Your task to perform on an android device: turn on data saver in the chrome app Image 0: 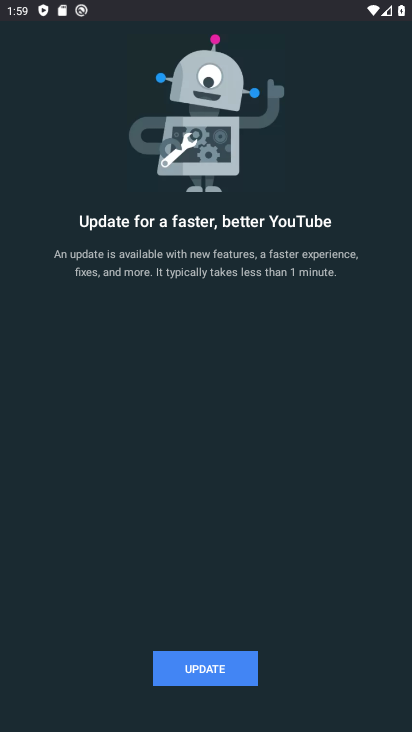
Step 0: press back button
Your task to perform on an android device: turn on data saver in the chrome app Image 1: 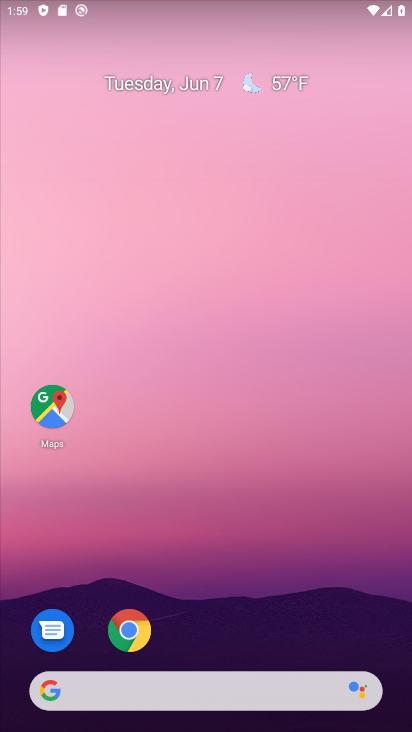
Step 1: click (128, 633)
Your task to perform on an android device: turn on data saver in the chrome app Image 2: 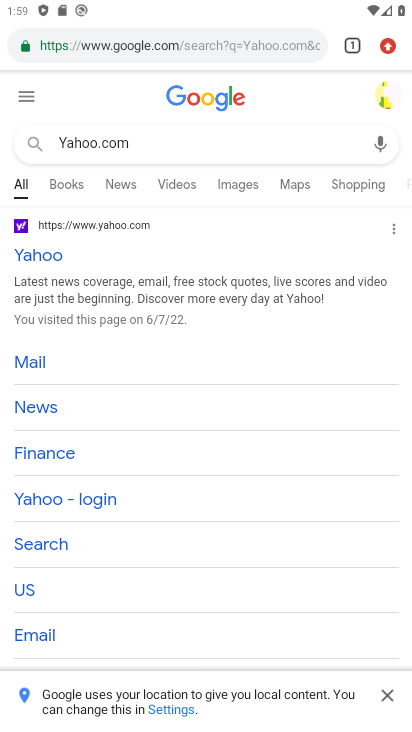
Step 2: drag from (286, 218) to (291, 408)
Your task to perform on an android device: turn on data saver in the chrome app Image 3: 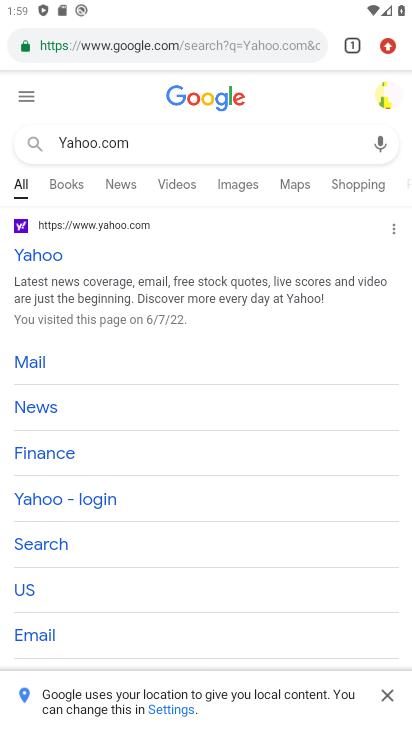
Step 3: click (380, 42)
Your task to perform on an android device: turn on data saver in the chrome app Image 4: 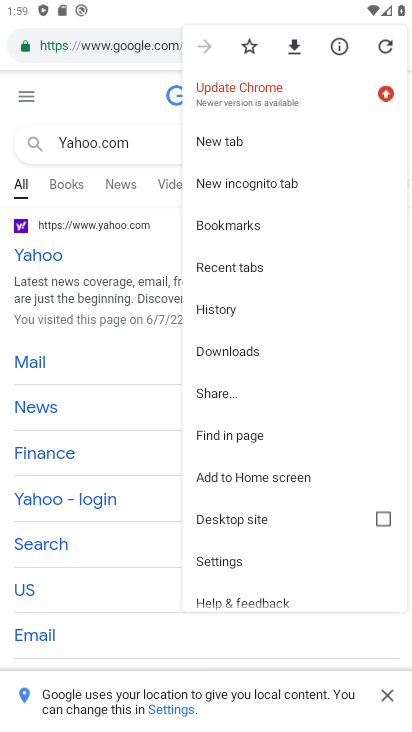
Step 4: click (207, 564)
Your task to perform on an android device: turn on data saver in the chrome app Image 5: 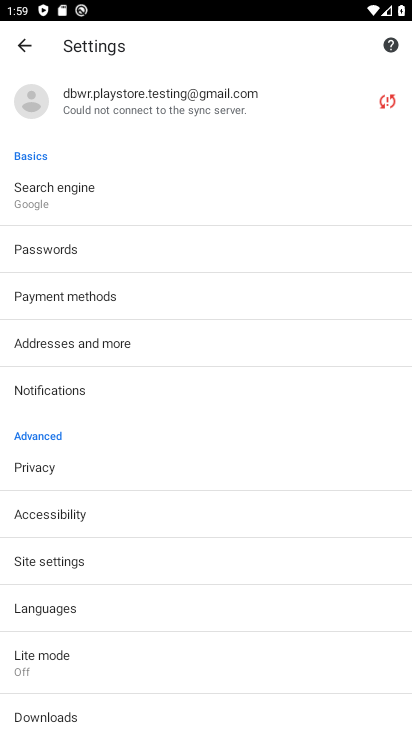
Step 5: click (61, 657)
Your task to perform on an android device: turn on data saver in the chrome app Image 6: 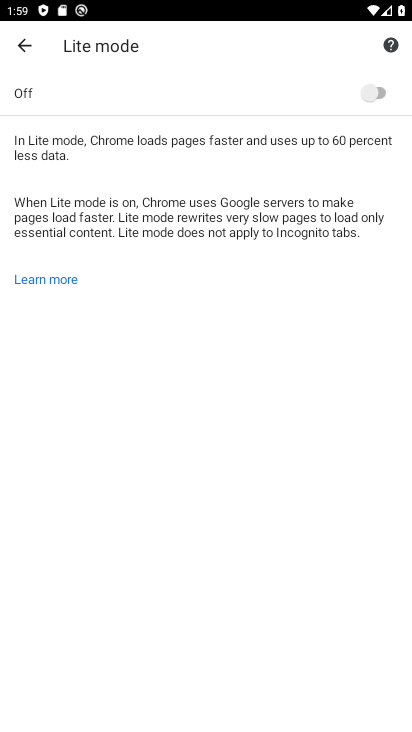
Step 6: click (387, 90)
Your task to perform on an android device: turn on data saver in the chrome app Image 7: 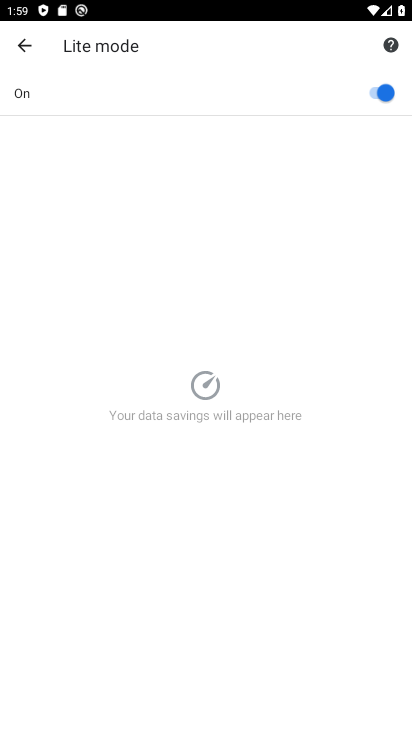
Step 7: task complete